Your task to perform on an android device: Open privacy settings Image 0: 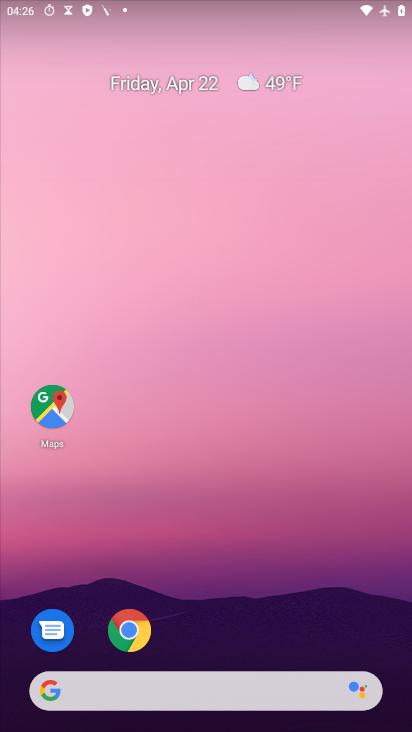
Step 0: drag from (283, 515) to (232, 55)
Your task to perform on an android device: Open privacy settings Image 1: 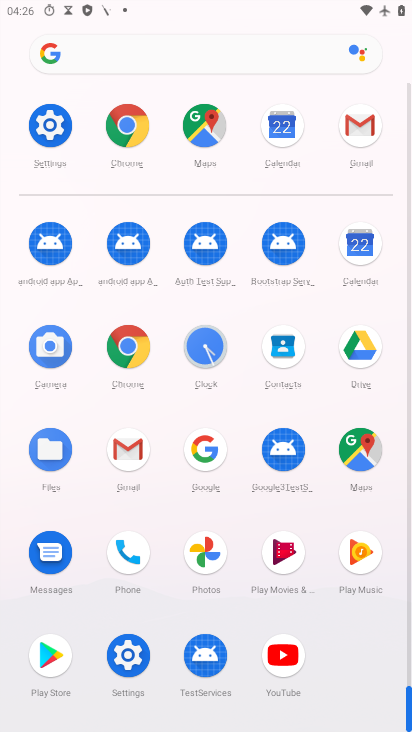
Step 1: click (132, 655)
Your task to perform on an android device: Open privacy settings Image 2: 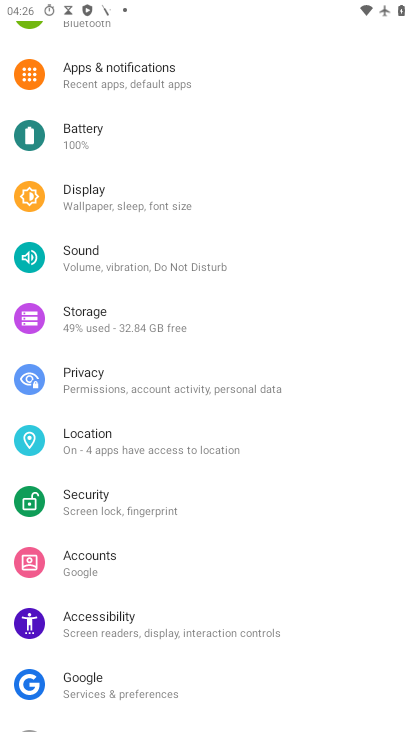
Step 2: drag from (219, 140) to (213, 577)
Your task to perform on an android device: Open privacy settings Image 3: 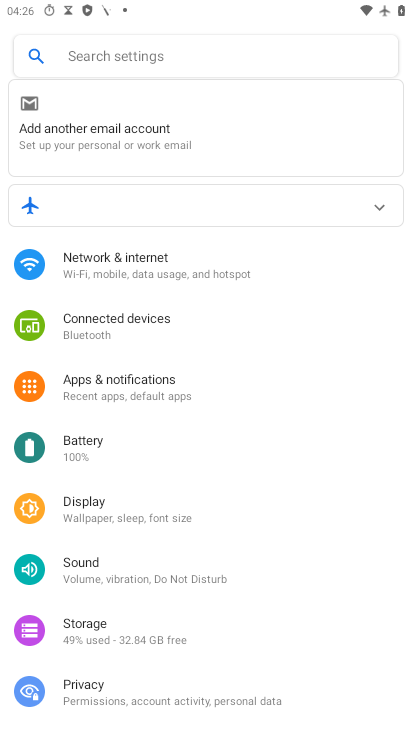
Step 3: press back button
Your task to perform on an android device: Open privacy settings Image 4: 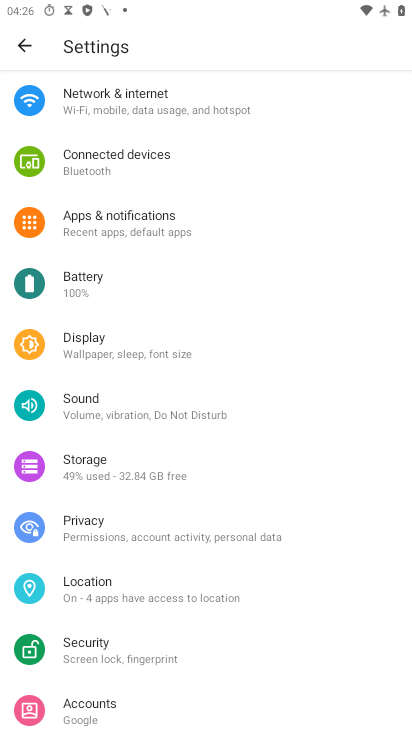
Step 4: press back button
Your task to perform on an android device: Open privacy settings Image 5: 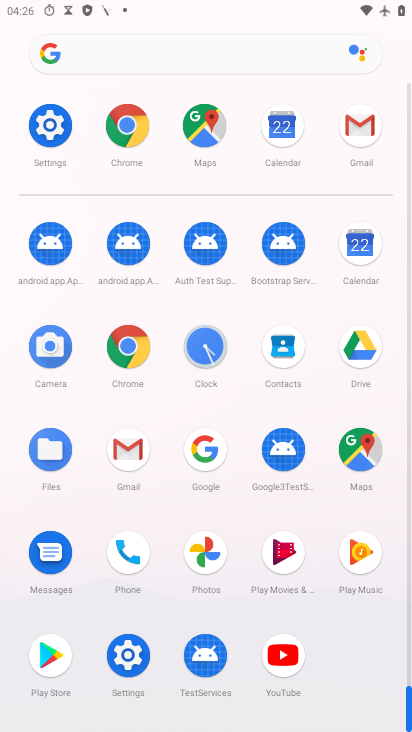
Step 5: click (126, 118)
Your task to perform on an android device: Open privacy settings Image 6: 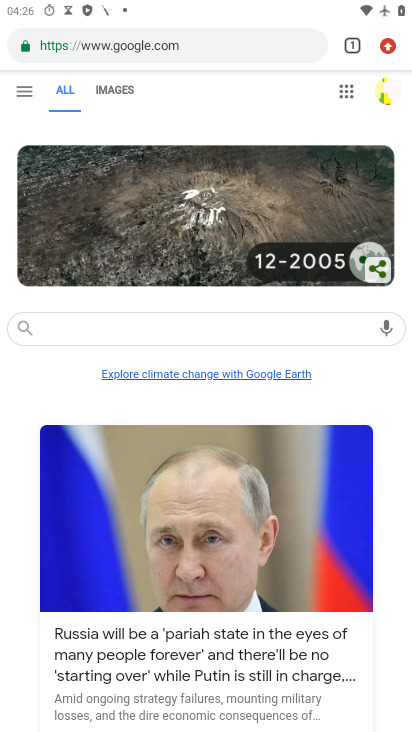
Step 6: drag from (386, 45) to (230, 564)
Your task to perform on an android device: Open privacy settings Image 7: 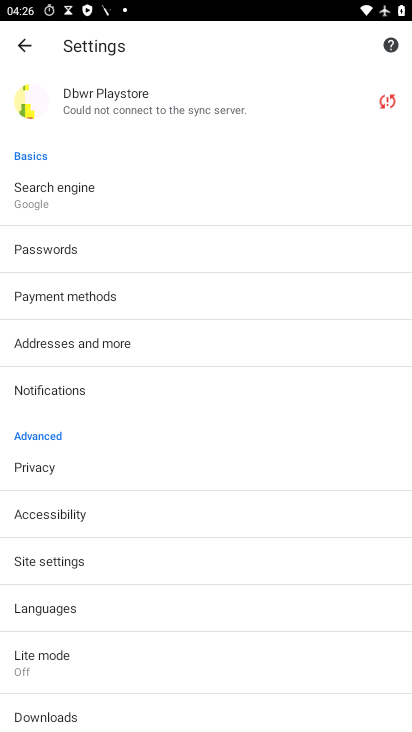
Step 7: click (106, 474)
Your task to perform on an android device: Open privacy settings Image 8: 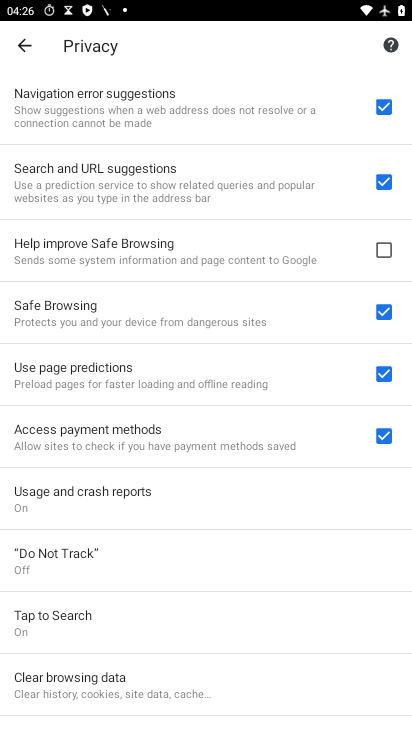
Step 8: task complete